Your task to perform on an android device: set the stopwatch Image 0: 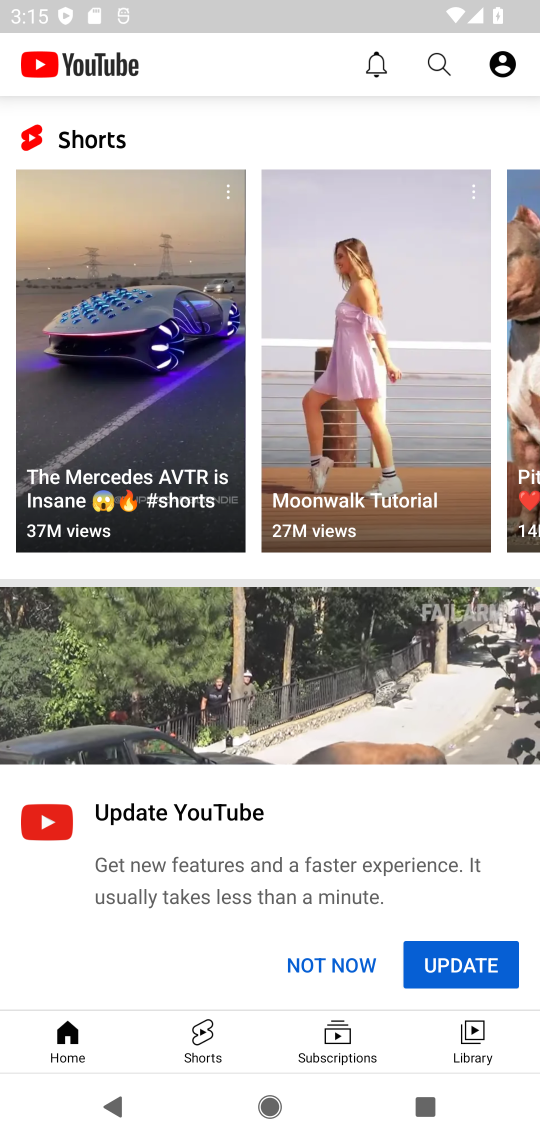
Step 0: press home button
Your task to perform on an android device: set the stopwatch Image 1: 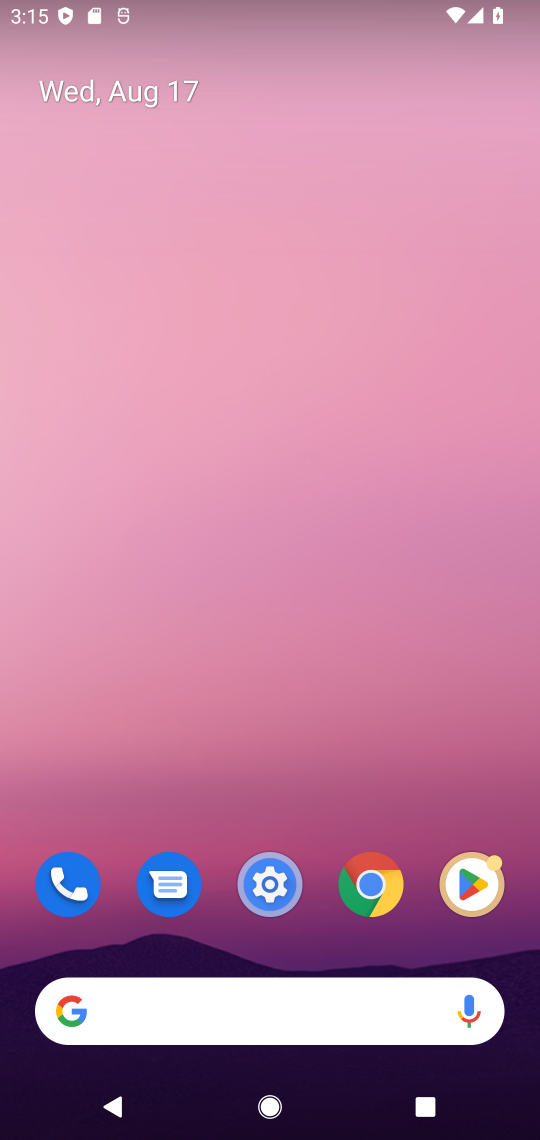
Step 1: drag from (323, 777) to (314, 149)
Your task to perform on an android device: set the stopwatch Image 2: 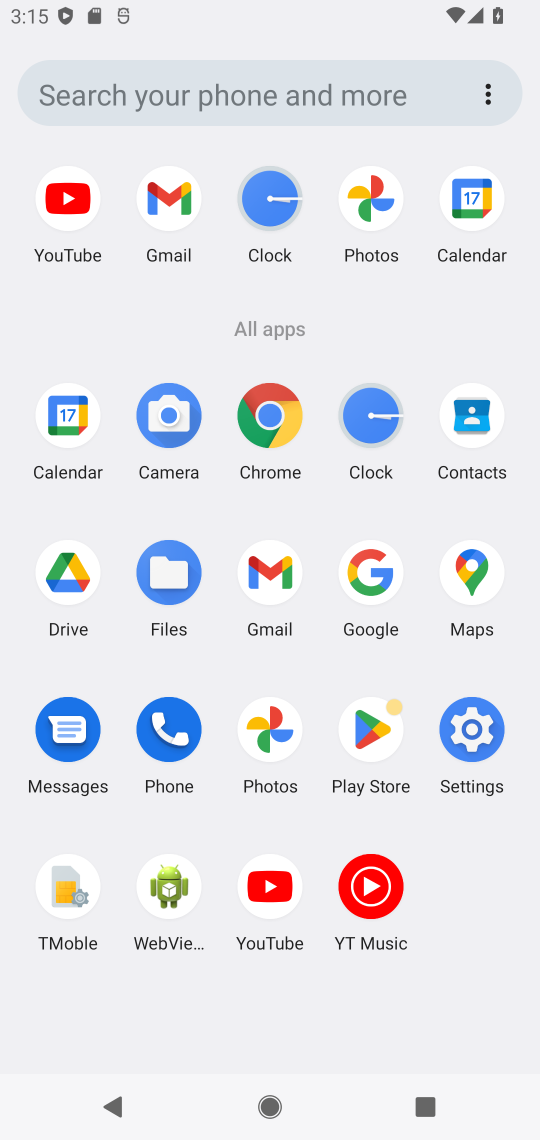
Step 2: click (373, 424)
Your task to perform on an android device: set the stopwatch Image 3: 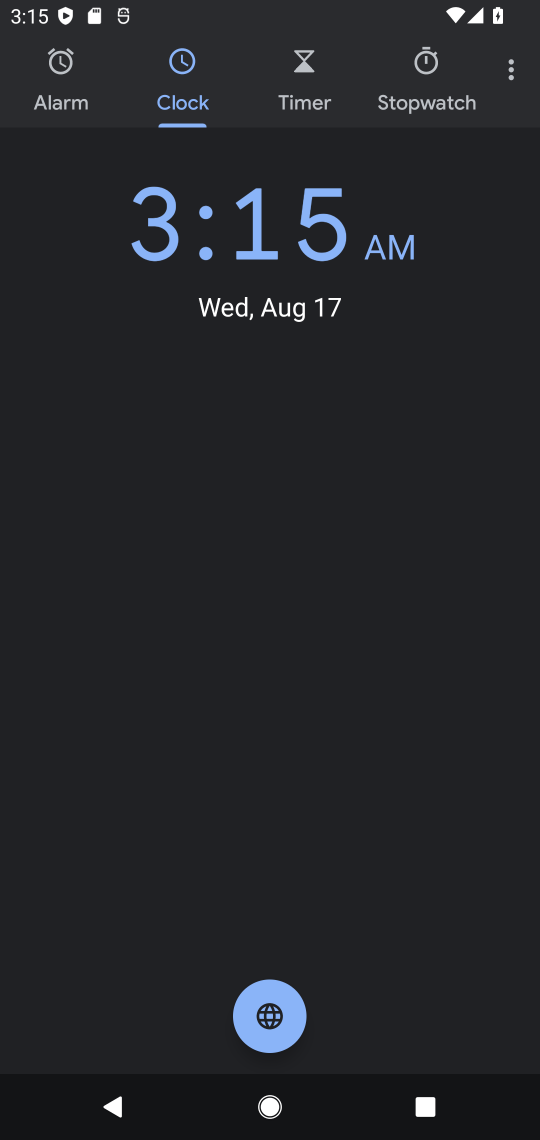
Step 3: click (428, 80)
Your task to perform on an android device: set the stopwatch Image 4: 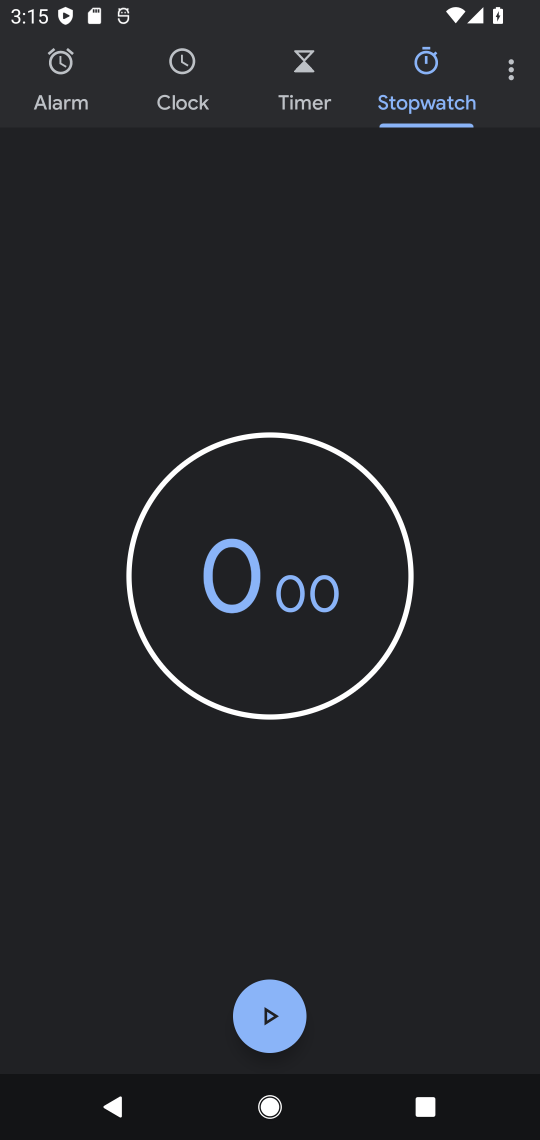
Step 4: click (360, 583)
Your task to perform on an android device: set the stopwatch Image 5: 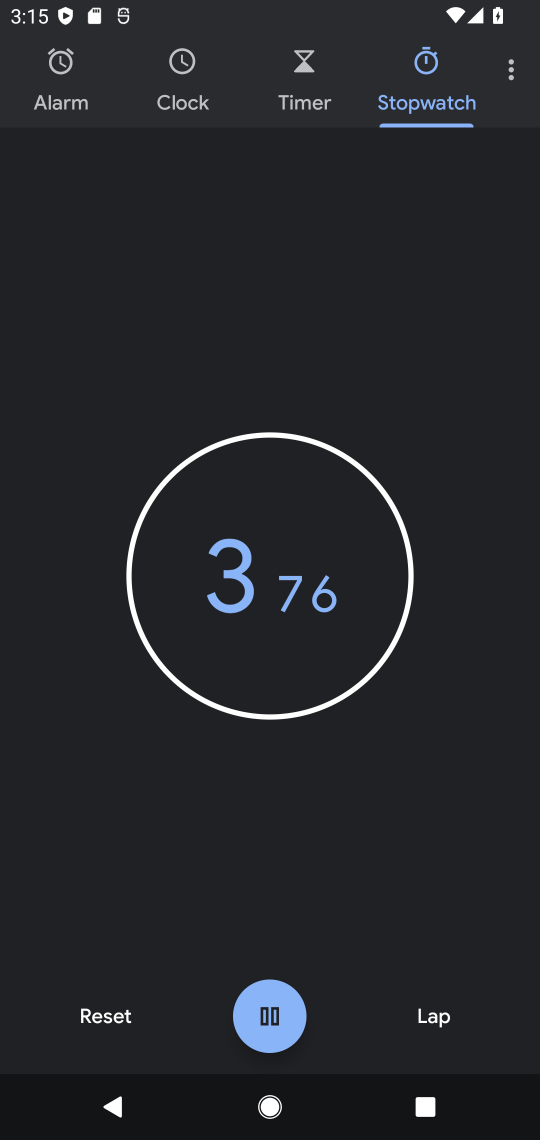
Step 5: task complete